Your task to perform on an android device: open a bookmark in the chrome app Image 0: 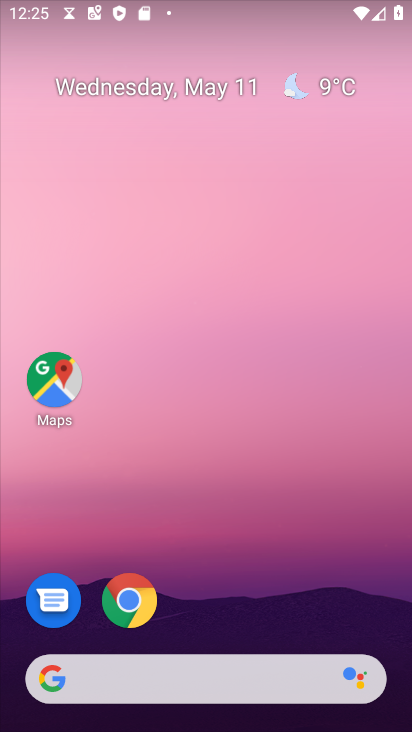
Step 0: click (135, 599)
Your task to perform on an android device: open a bookmark in the chrome app Image 1: 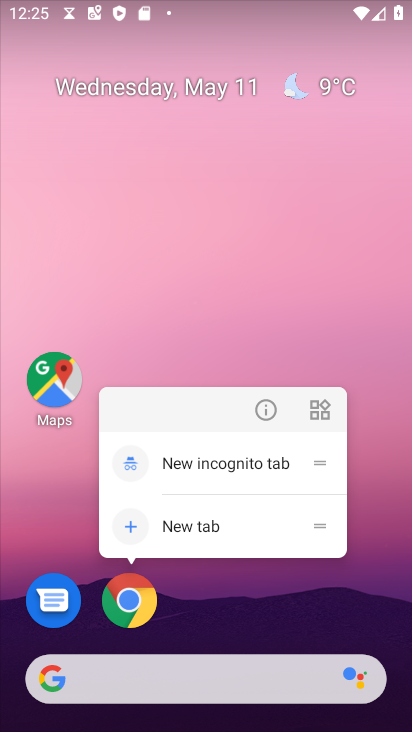
Step 1: click (131, 607)
Your task to perform on an android device: open a bookmark in the chrome app Image 2: 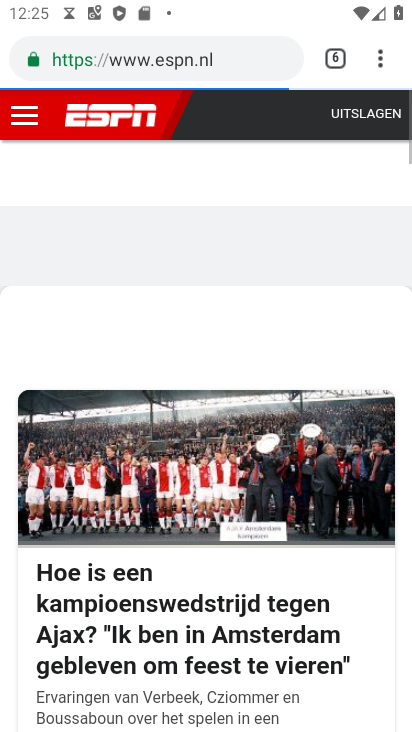
Step 2: click (375, 65)
Your task to perform on an android device: open a bookmark in the chrome app Image 3: 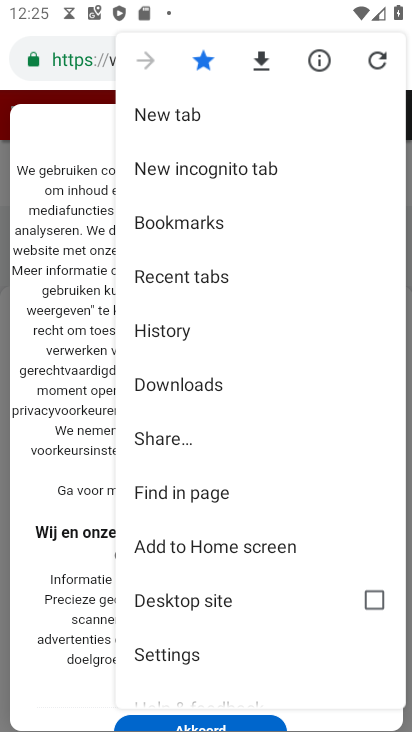
Step 3: click (190, 226)
Your task to perform on an android device: open a bookmark in the chrome app Image 4: 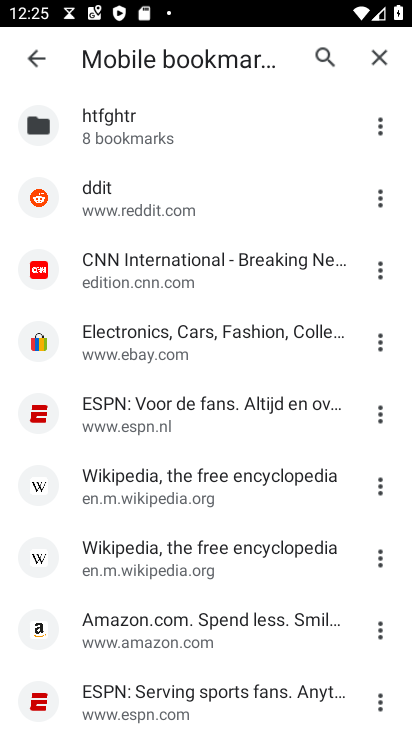
Step 4: click (222, 443)
Your task to perform on an android device: open a bookmark in the chrome app Image 5: 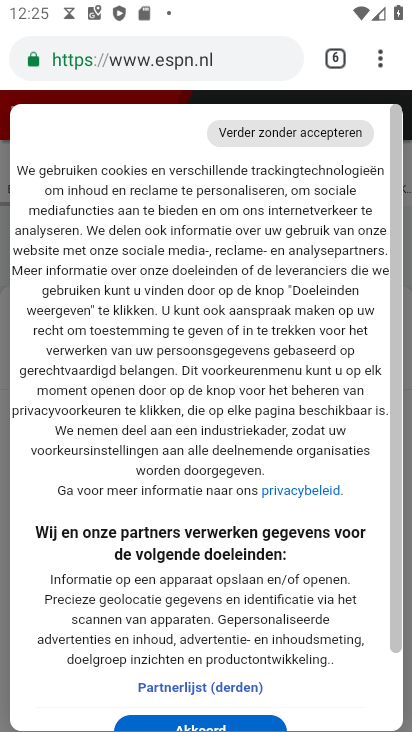
Step 5: task complete